Your task to perform on an android device: refresh tabs in the chrome app Image 0: 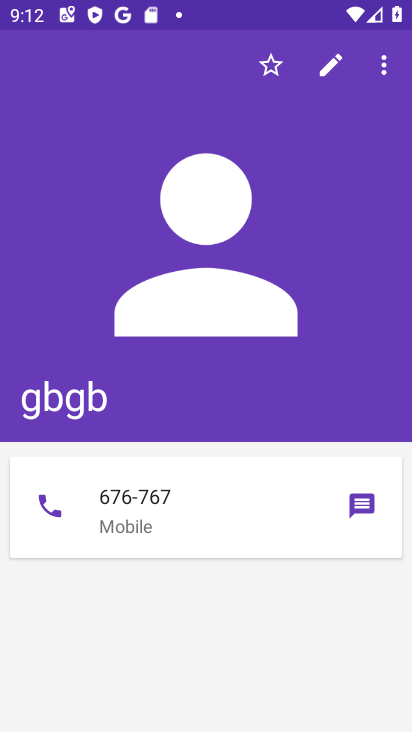
Step 0: press home button
Your task to perform on an android device: refresh tabs in the chrome app Image 1: 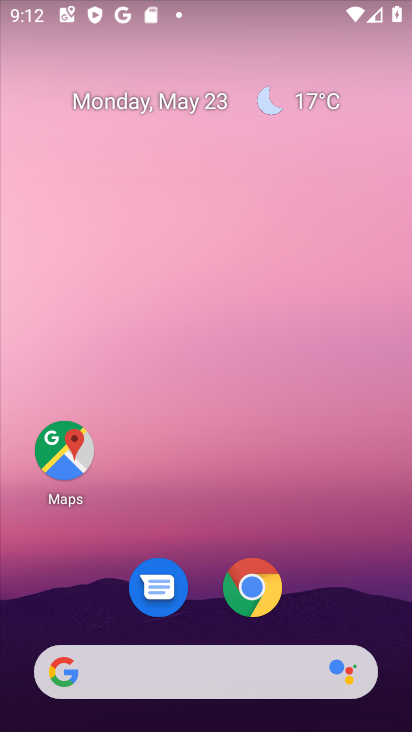
Step 1: click (251, 590)
Your task to perform on an android device: refresh tabs in the chrome app Image 2: 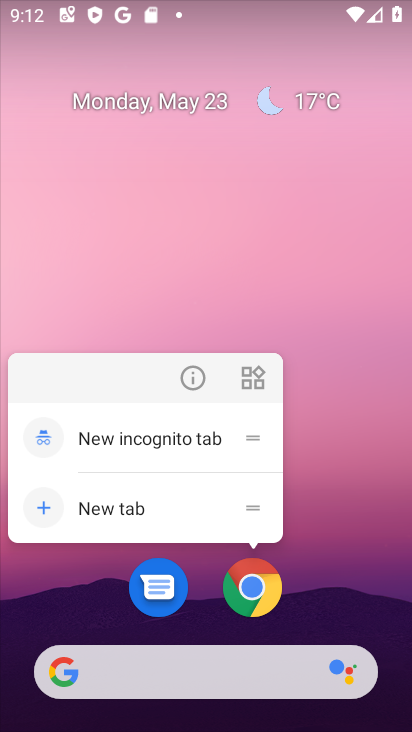
Step 2: click (255, 575)
Your task to perform on an android device: refresh tabs in the chrome app Image 3: 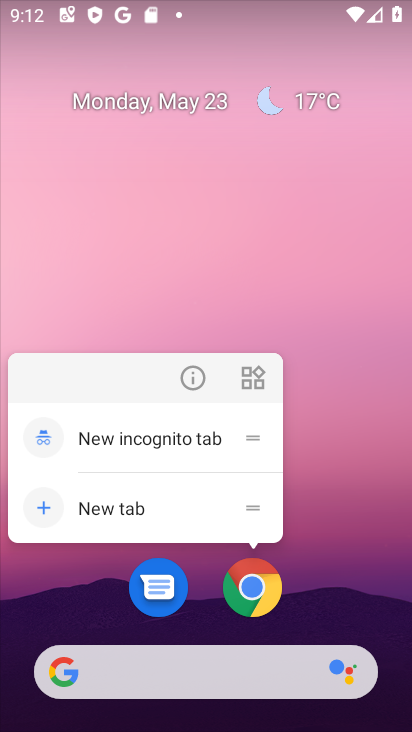
Step 3: click (251, 577)
Your task to perform on an android device: refresh tabs in the chrome app Image 4: 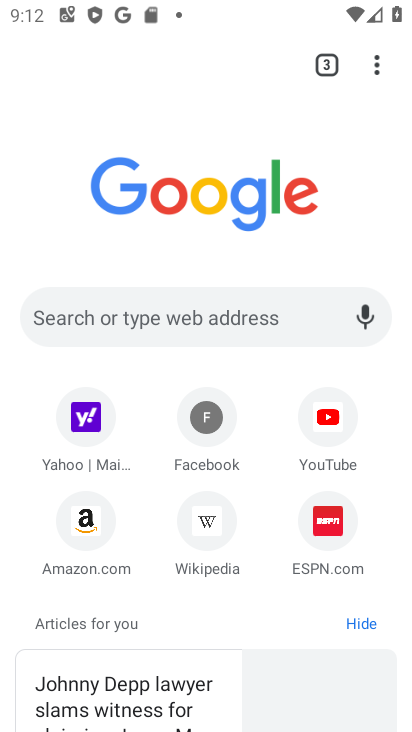
Step 4: click (373, 67)
Your task to perform on an android device: refresh tabs in the chrome app Image 5: 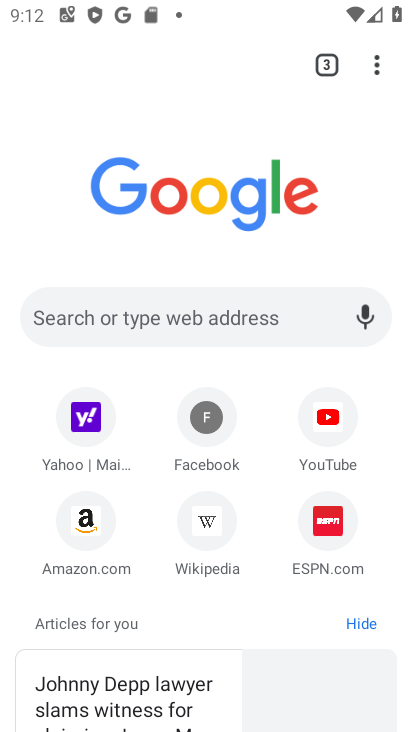
Step 5: task complete